Your task to perform on an android device: check android version Image 0: 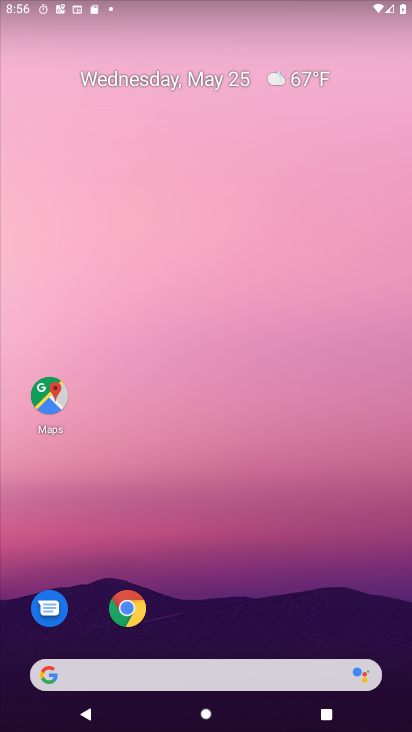
Step 0: drag from (238, 716) to (238, 248)
Your task to perform on an android device: check android version Image 1: 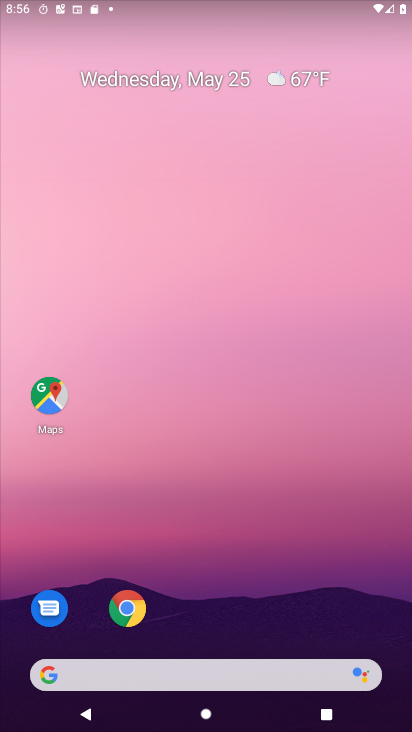
Step 1: drag from (227, 731) to (224, 89)
Your task to perform on an android device: check android version Image 2: 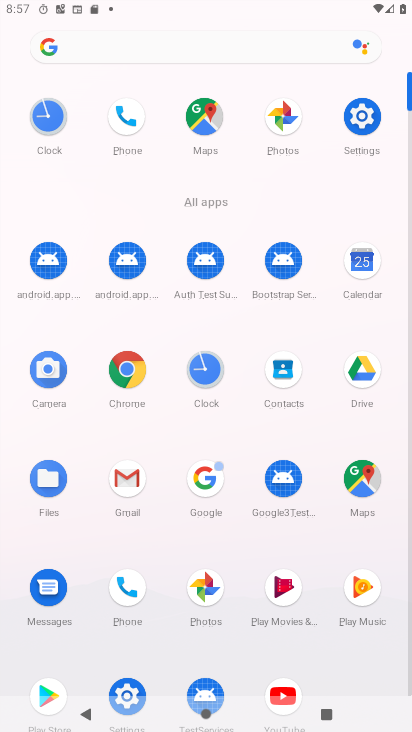
Step 2: click (360, 108)
Your task to perform on an android device: check android version Image 3: 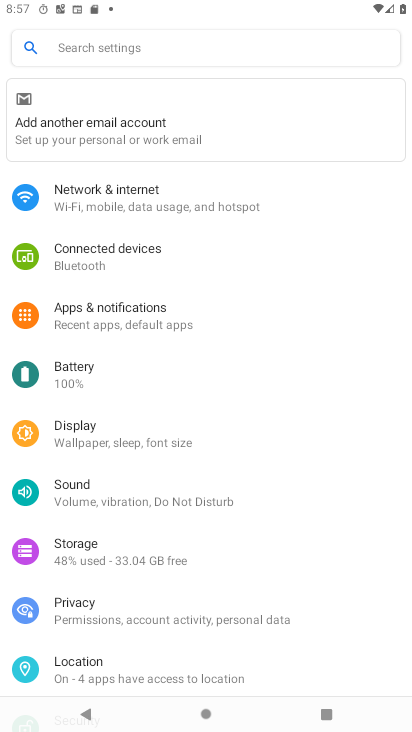
Step 3: drag from (130, 664) to (125, 254)
Your task to perform on an android device: check android version Image 4: 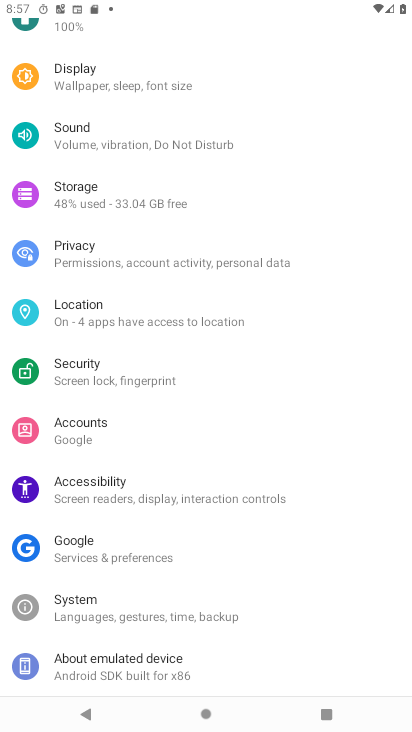
Step 4: drag from (115, 653) to (112, 287)
Your task to perform on an android device: check android version Image 5: 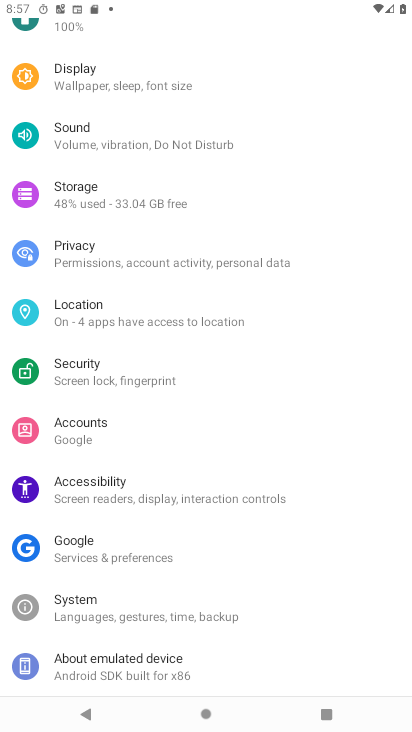
Step 5: click (118, 667)
Your task to perform on an android device: check android version Image 6: 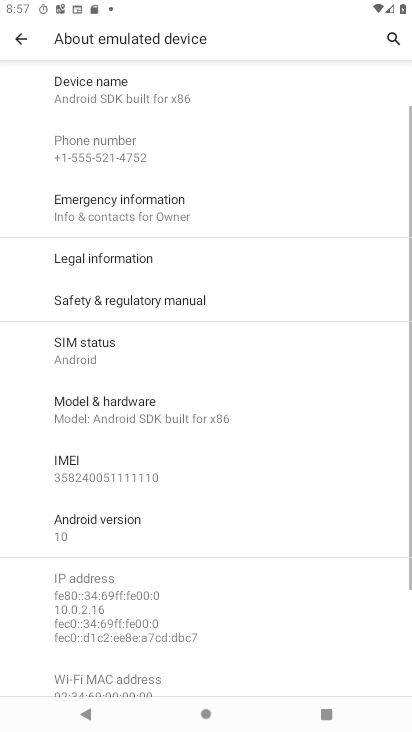
Step 6: click (101, 528)
Your task to perform on an android device: check android version Image 7: 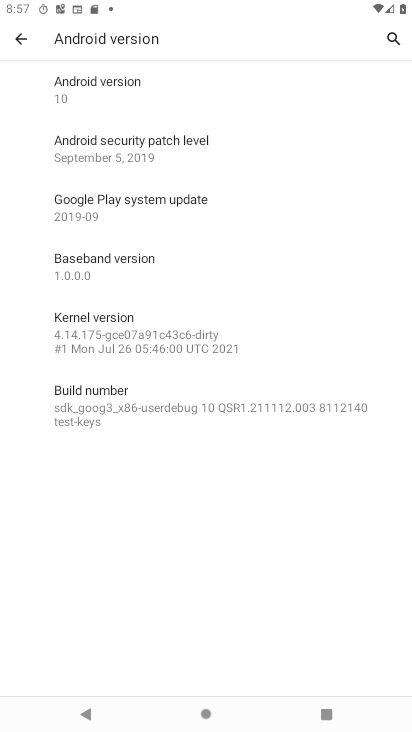
Step 7: task complete